Your task to perform on an android device: Open calendar and show me the second week of next month Image 0: 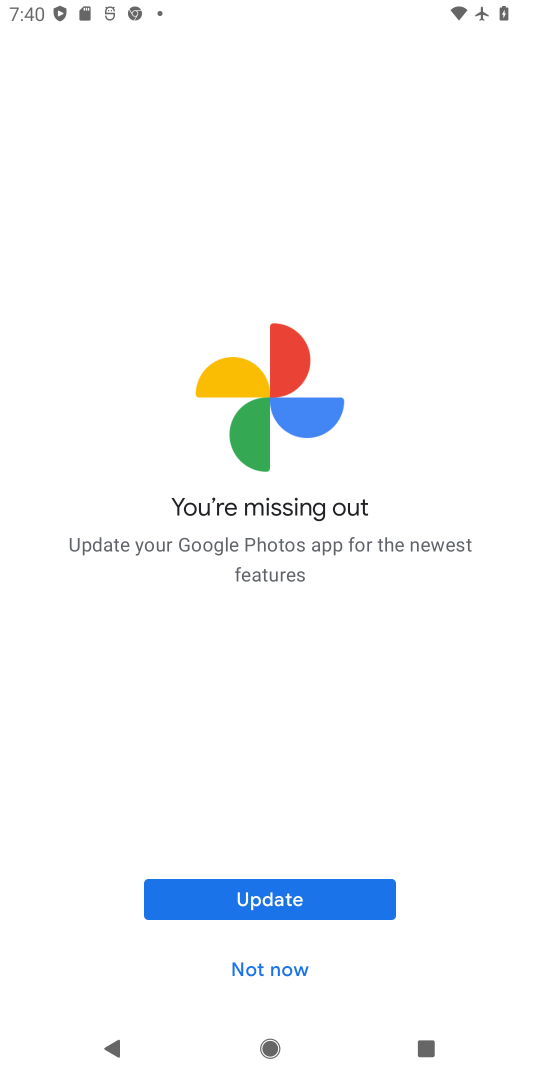
Step 0: press home button
Your task to perform on an android device: Open calendar and show me the second week of next month Image 1: 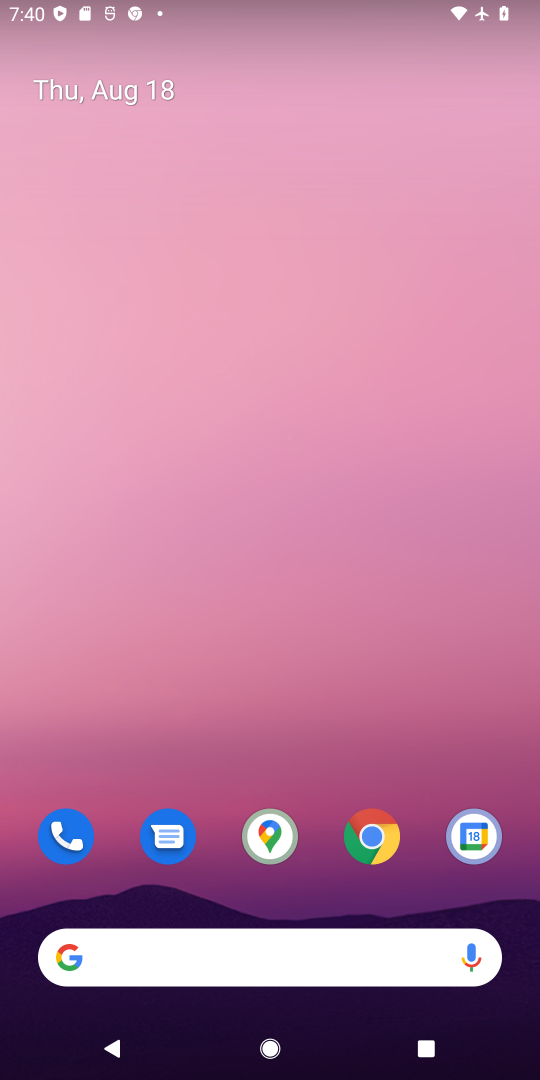
Step 1: drag from (449, 711) to (290, 7)
Your task to perform on an android device: Open calendar and show me the second week of next month Image 2: 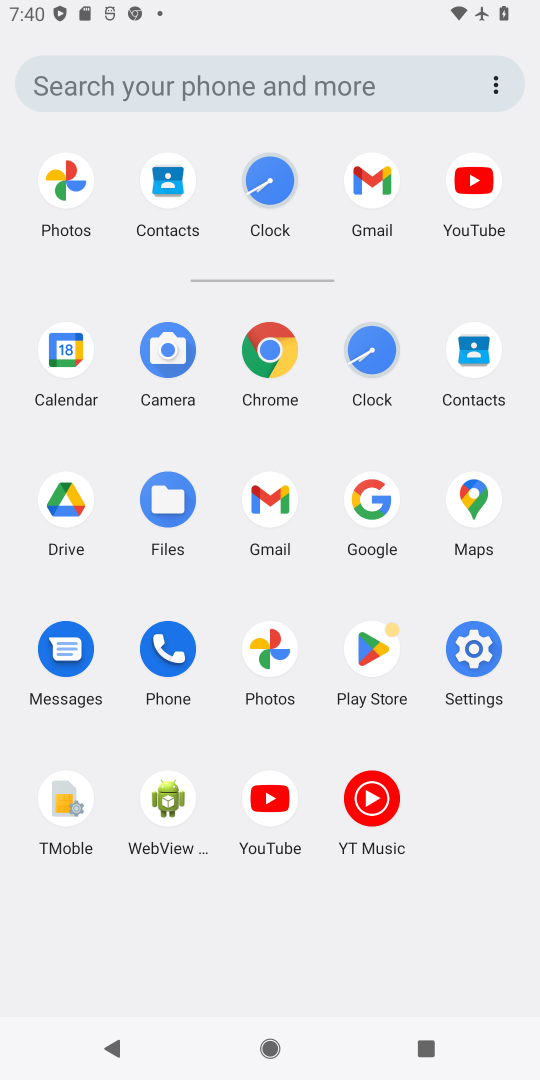
Step 2: click (54, 351)
Your task to perform on an android device: Open calendar and show me the second week of next month Image 3: 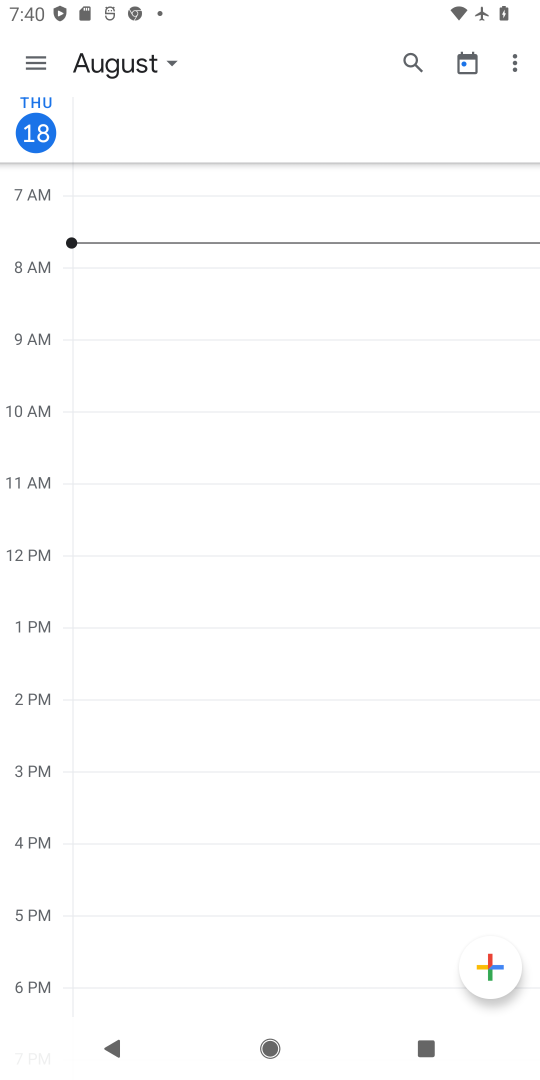
Step 3: click (107, 65)
Your task to perform on an android device: Open calendar and show me the second week of next month Image 4: 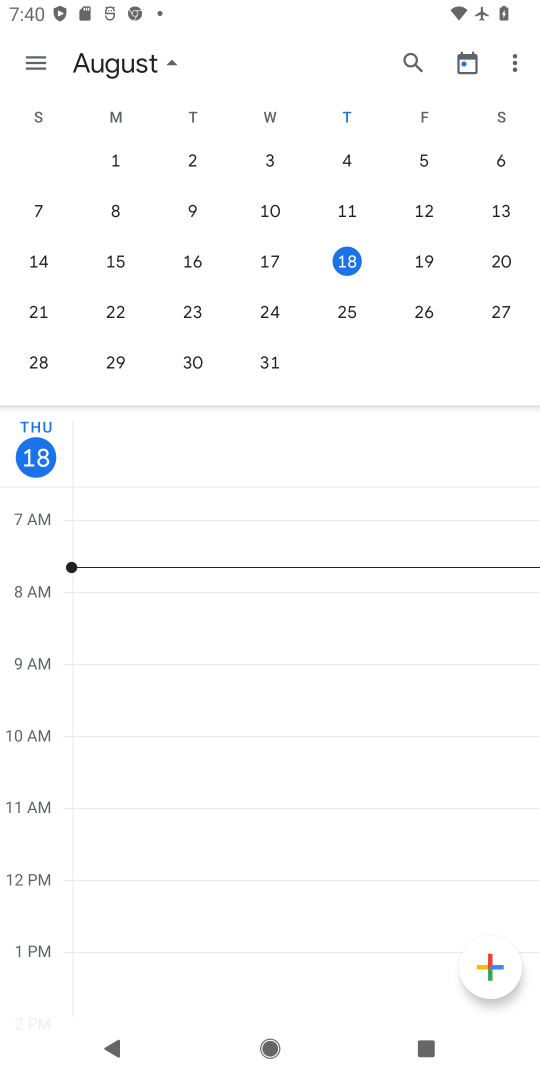
Step 4: drag from (495, 239) to (46, 236)
Your task to perform on an android device: Open calendar and show me the second week of next month Image 5: 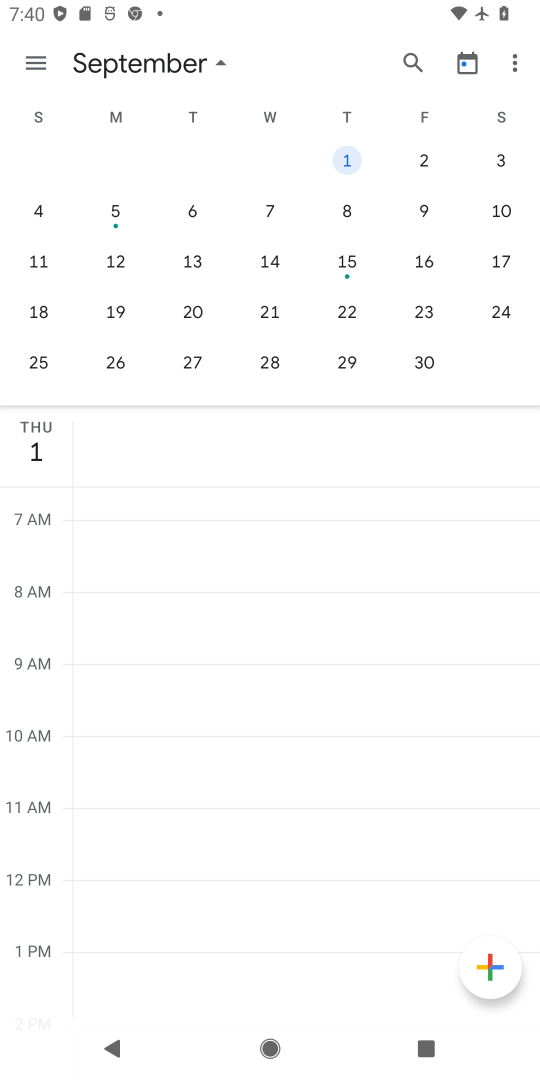
Step 5: click (108, 268)
Your task to perform on an android device: Open calendar and show me the second week of next month Image 6: 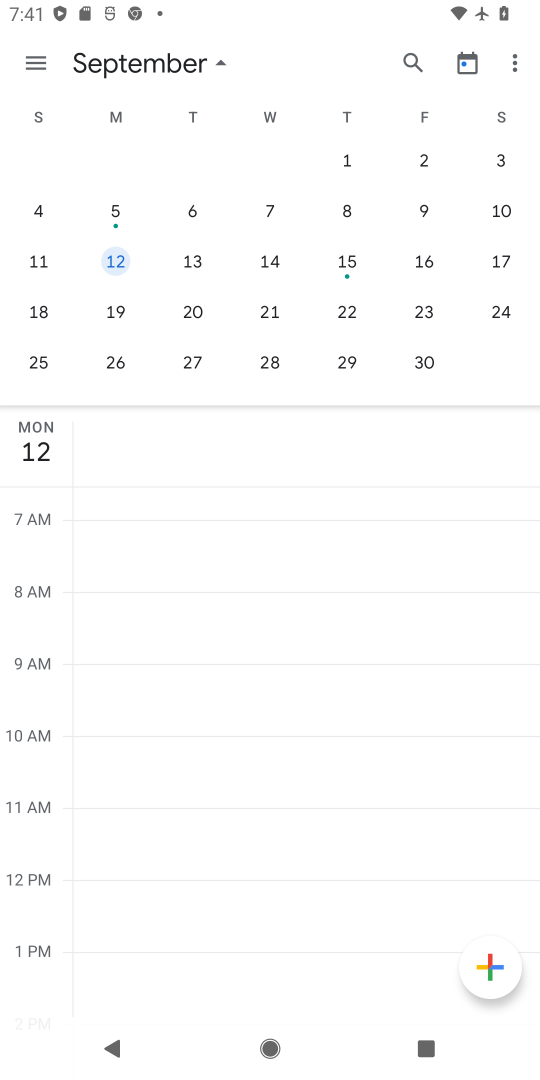
Step 6: click (37, 80)
Your task to perform on an android device: Open calendar and show me the second week of next month Image 7: 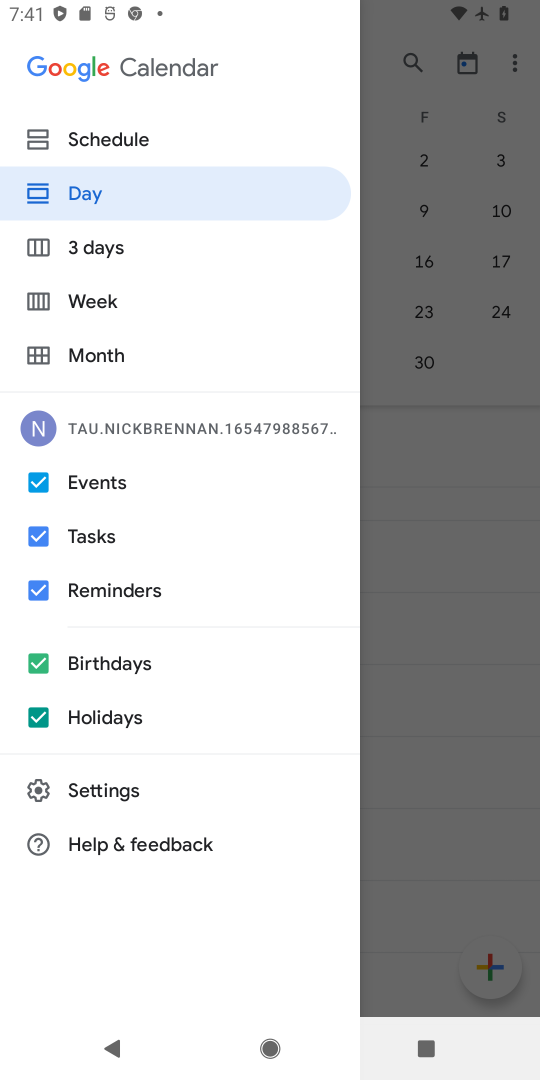
Step 7: click (77, 287)
Your task to perform on an android device: Open calendar and show me the second week of next month Image 8: 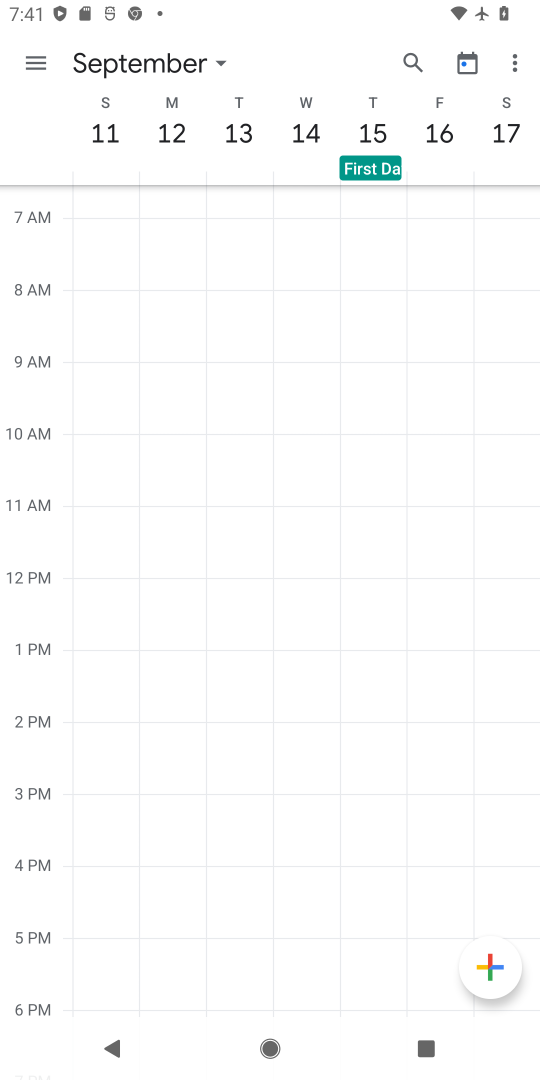
Step 8: task complete